Your task to perform on an android device: change the clock display to digital Image 0: 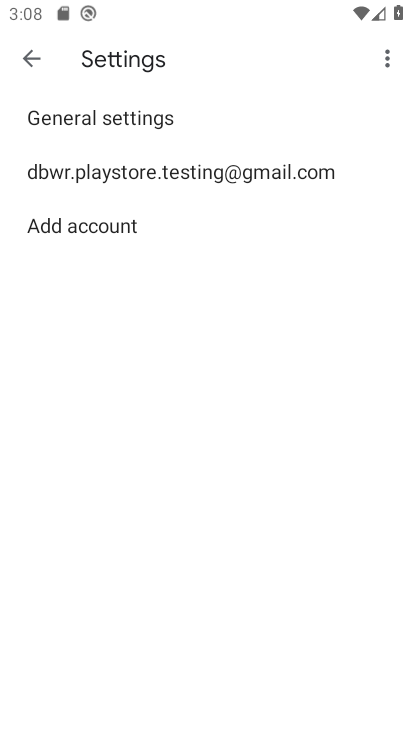
Step 0: press home button
Your task to perform on an android device: change the clock display to digital Image 1: 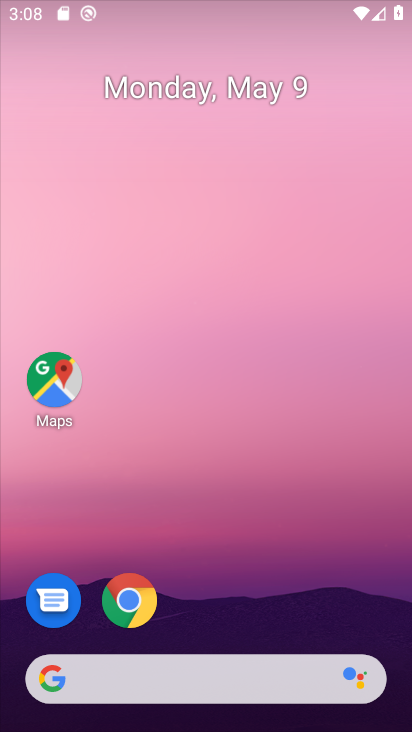
Step 1: drag from (297, 511) to (303, 67)
Your task to perform on an android device: change the clock display to digital Image 2: 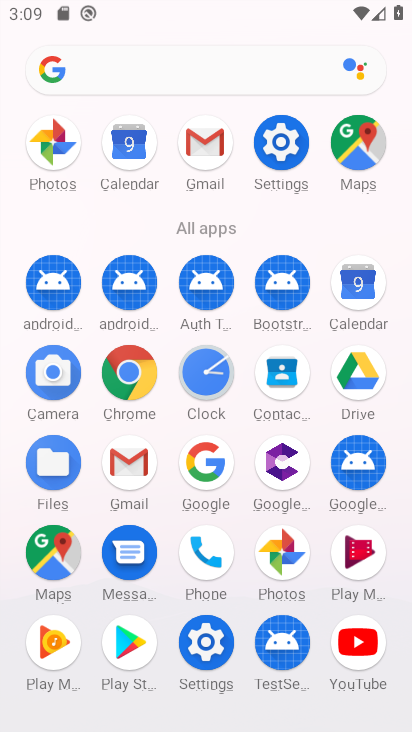
Step 2: click (220, 385)
Your task to perform on an android device: change the clock display to digital Image 3: 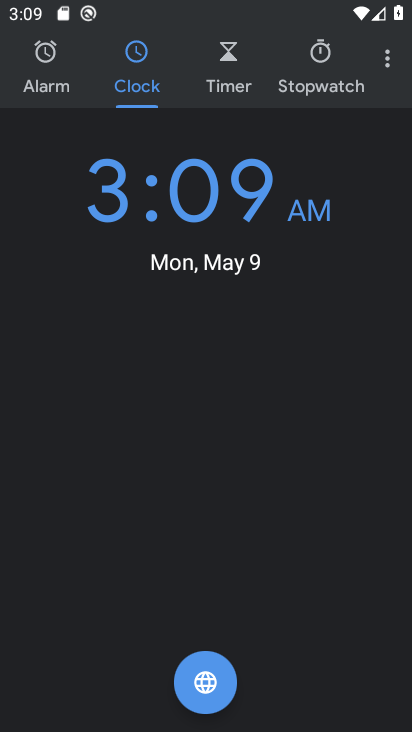
Step 3: click (371, 72)
Your task to perform on an android device: change the clock display to digital Image 4: 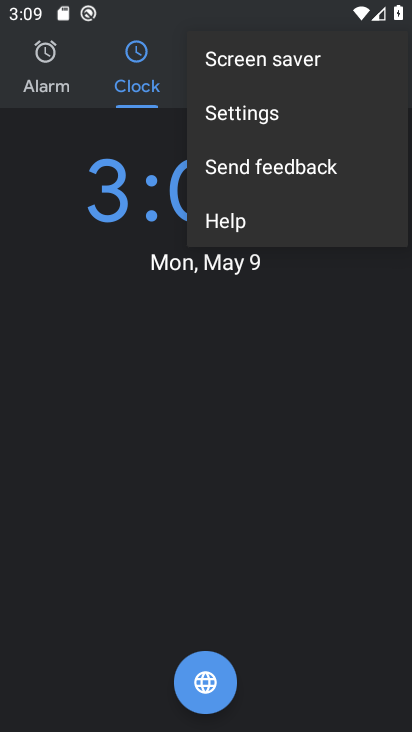
Step 4: click (248, 96)
Your task to perform on an android device: change the clock display to digital Image 5: 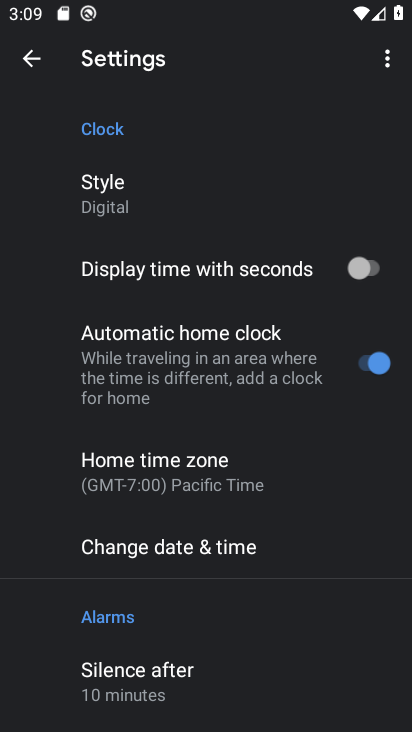
Step 5: task complete